Your task to perform on an android device: Find coffee shops on Maps Image 0: 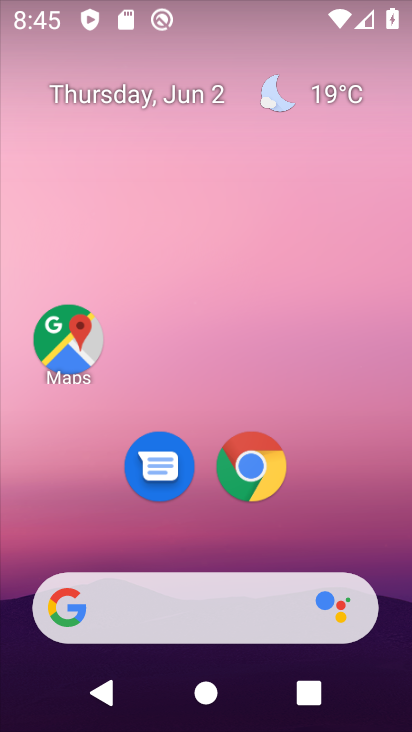
Step 0: click (76, 374)
Your task to perform on an android device: Find coffee shops on Maps Image 1: 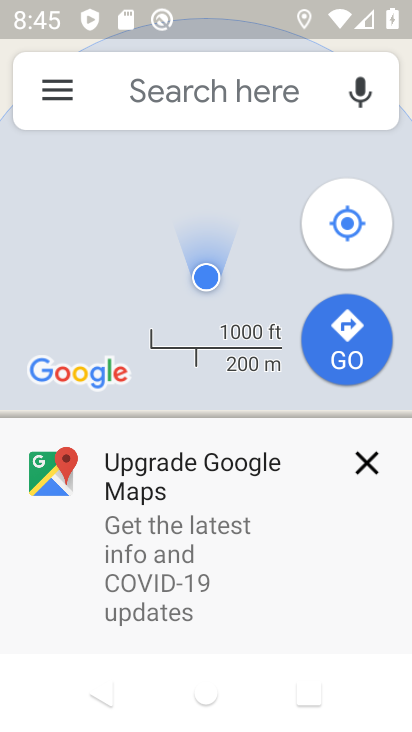
Step 1: click (217, 95)
Your task to perform on an android device: Find coffee shops on Maps Image 2: 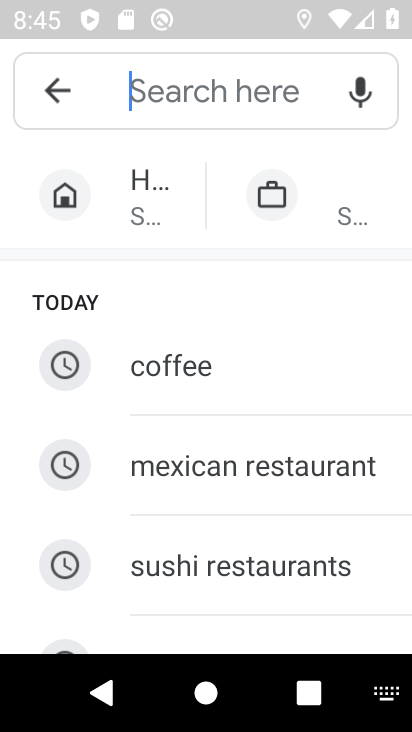
Step 2: type "coffee shops"
Your task to perform on an android device: Find coffee shops on Maps Image 3: 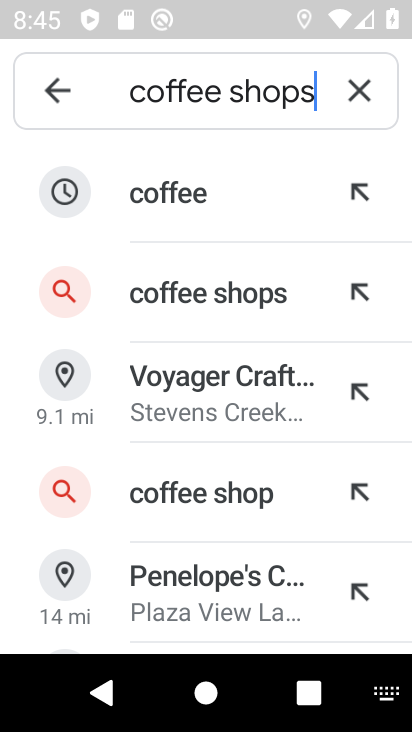
Step 3: click (144, 332)
Your task to perform on an android device: Find coffee shops on Maps Image 4: 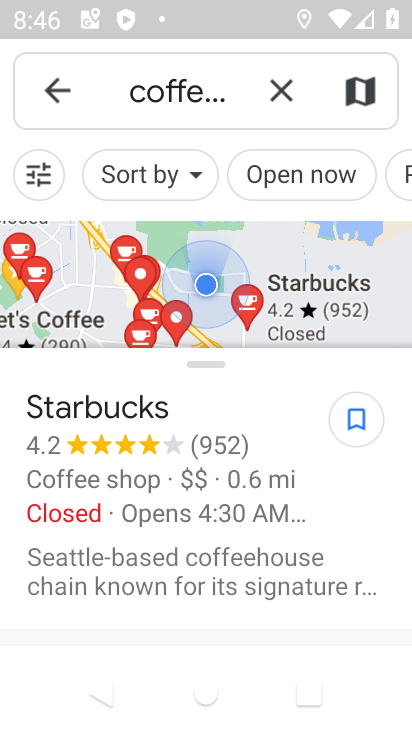
Step 4: task complete